Your task to perform on an android device: Open the calendar and show me this week's events? Image 0: 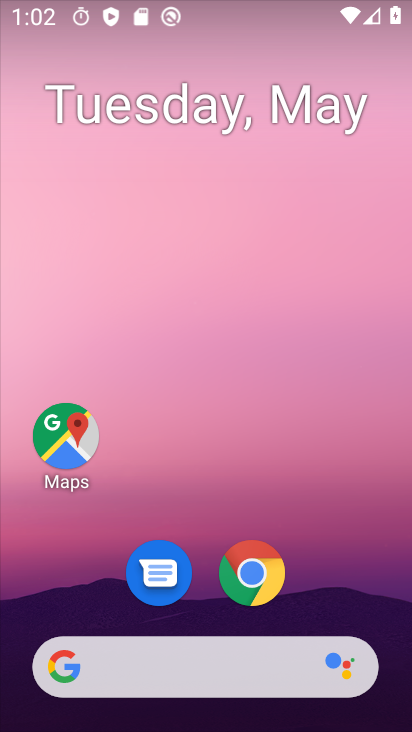
Step 0: drag from (340, 476) to (322, 36)
Your task to perform on an android device: Open the calendar and show me this week's events? Image 1: 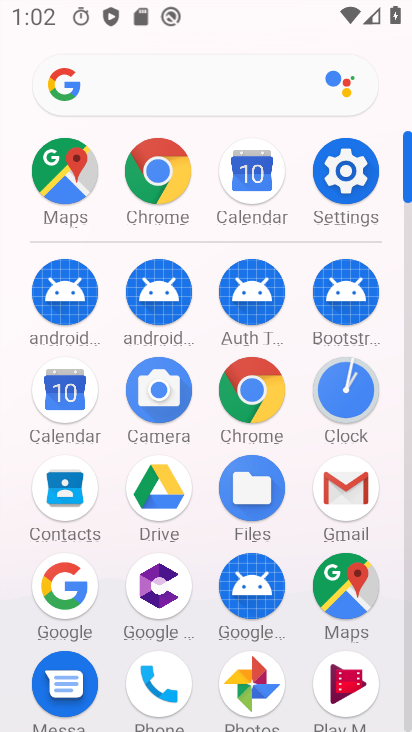
Step 1: click (65, 386)
Your task to perform on an android device: Open the calendar and show me this week's events? Image 2: 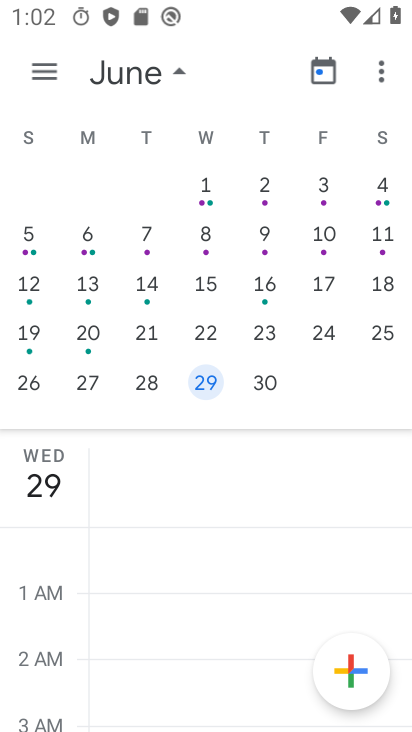
Step 2: click (275, 387)
Your task to perform on an android device: Open the calendar and show me this week's events? Image 3: 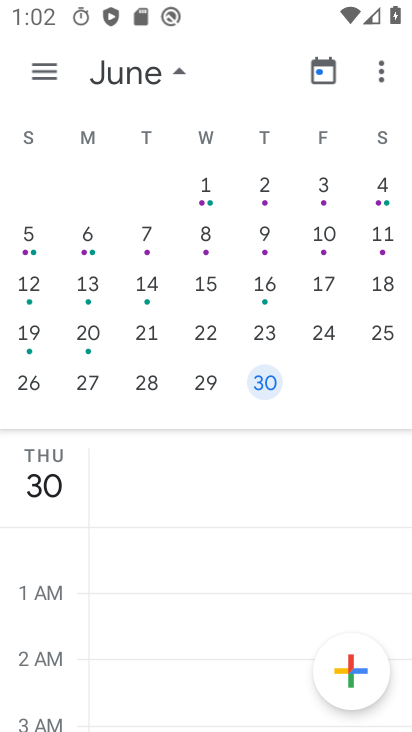
Step 3: task complete